Your task to perform on an android device: uninstall "Walmart Shopping & Grocery" Image 0: 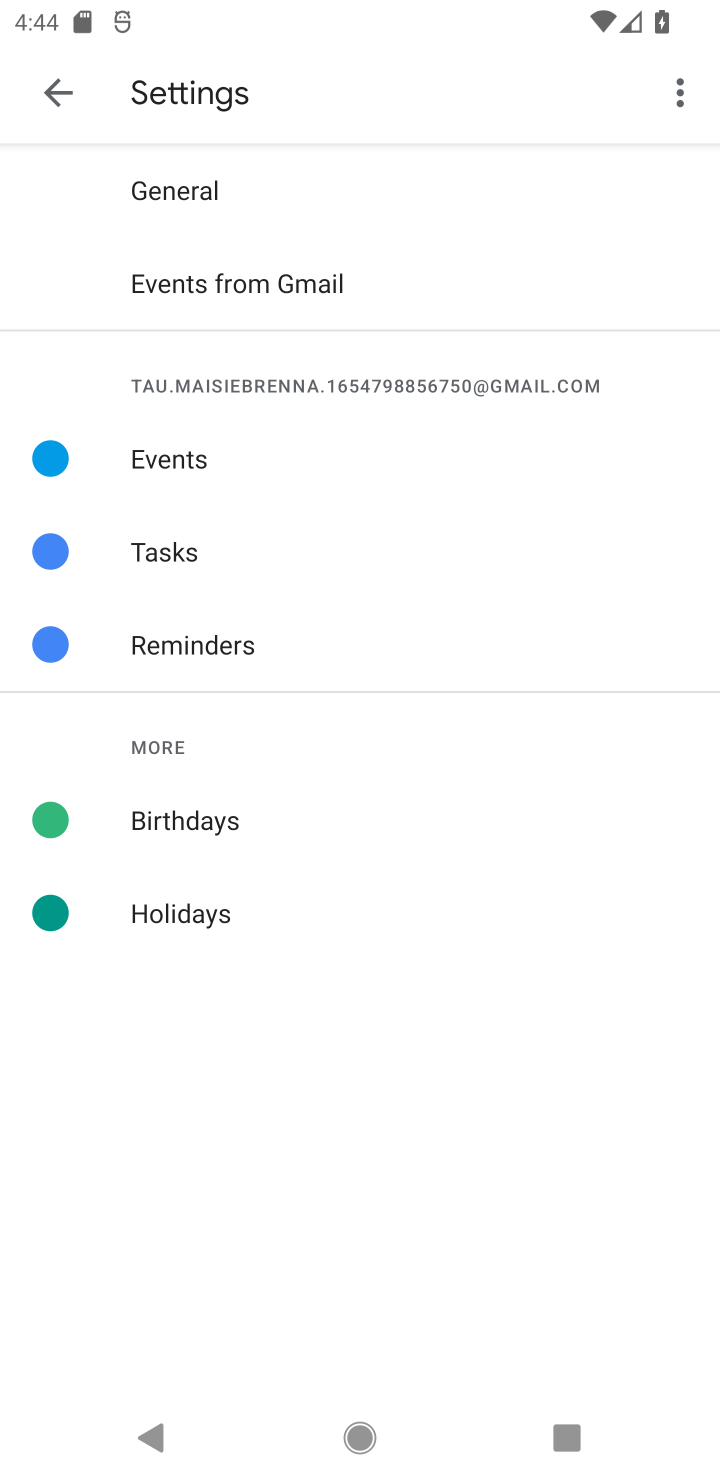
Step 0: press home button
Your task to perform on an android device: uninstall "Walmart Shopping & Grocery" Image 1: 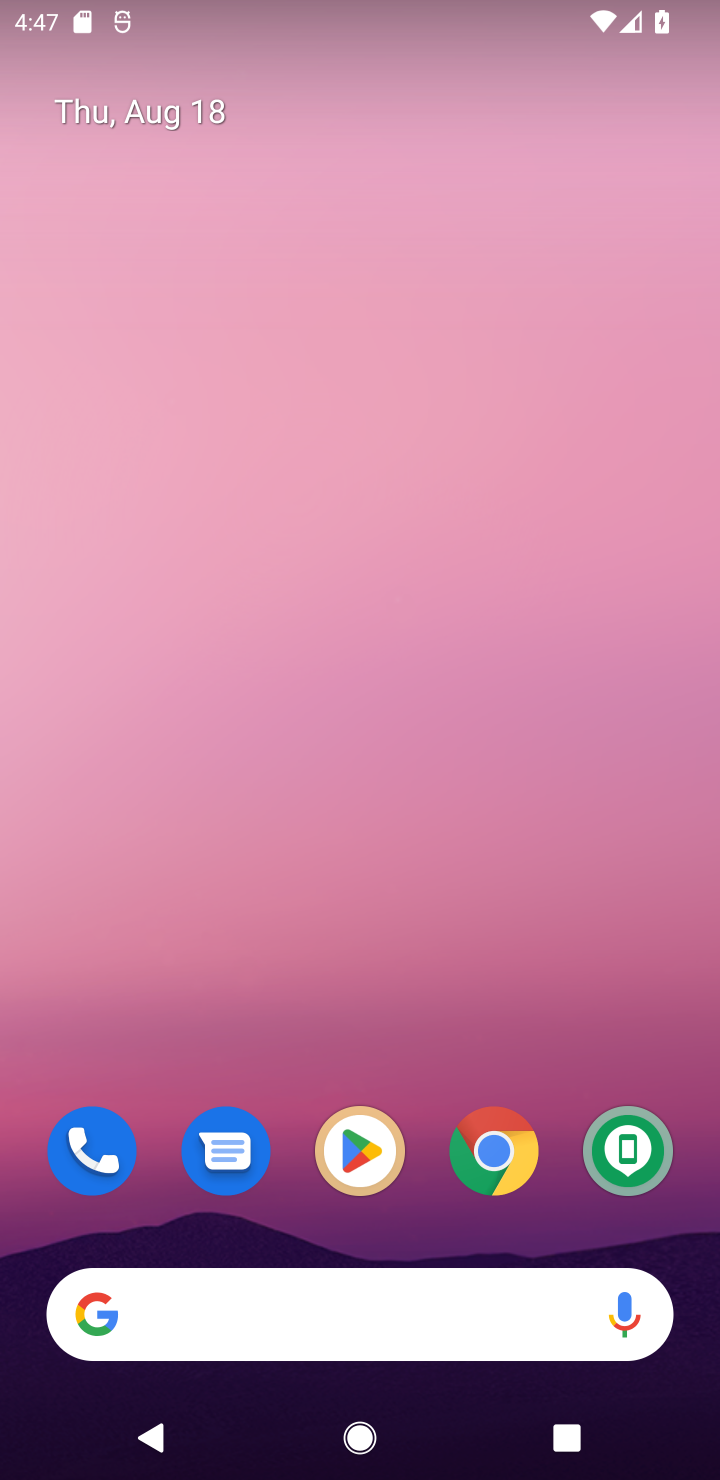
Step 1: click (324, 1178)
Your task to perform on an android device: uninstall "Walmart Shopping & Grocery" Image 2: 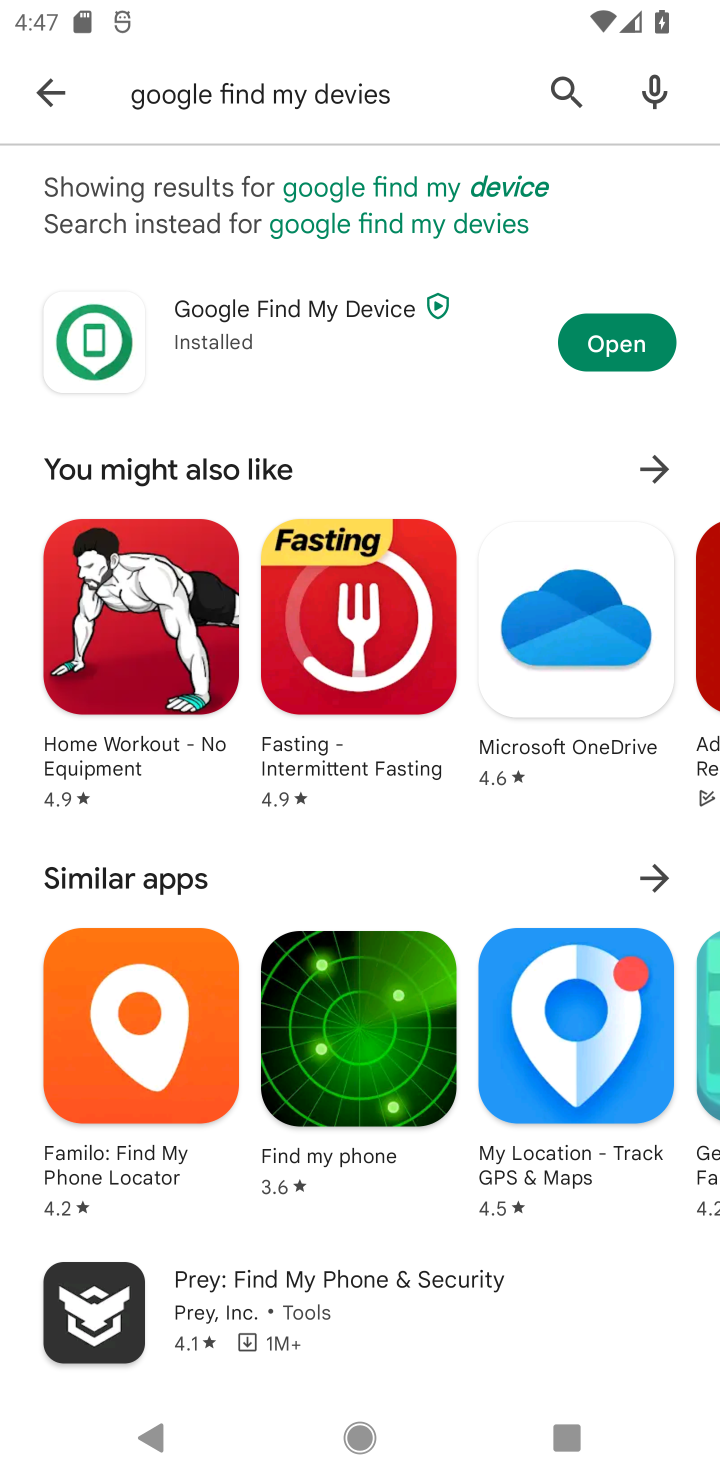
Step 2: click (571, 104)
Your task to perform on an android device: uninstall "Walmart Shopping & Grocery" Image 3: 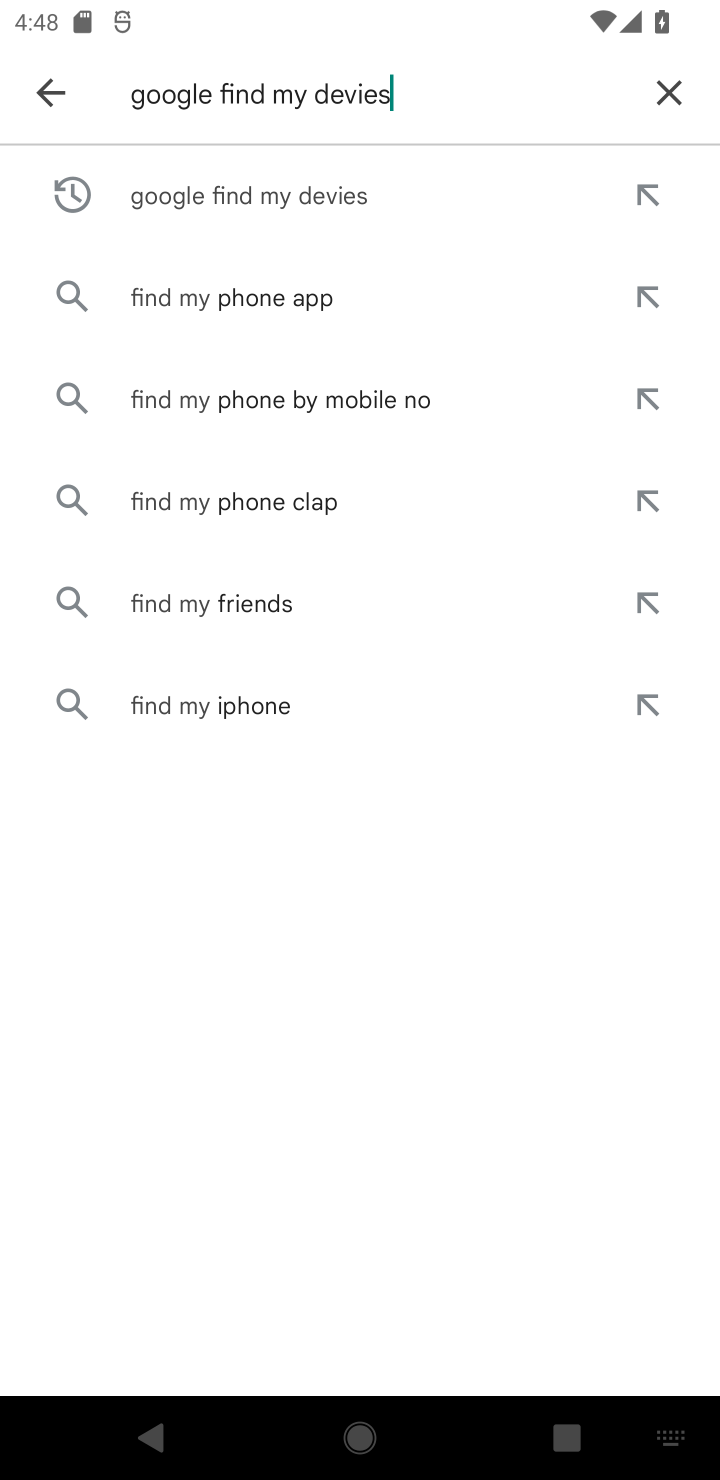
Step 3: click (380, 200)
Your task to perform on an android device: uninstall "Walmart Shopping & Grocery" Image 4: 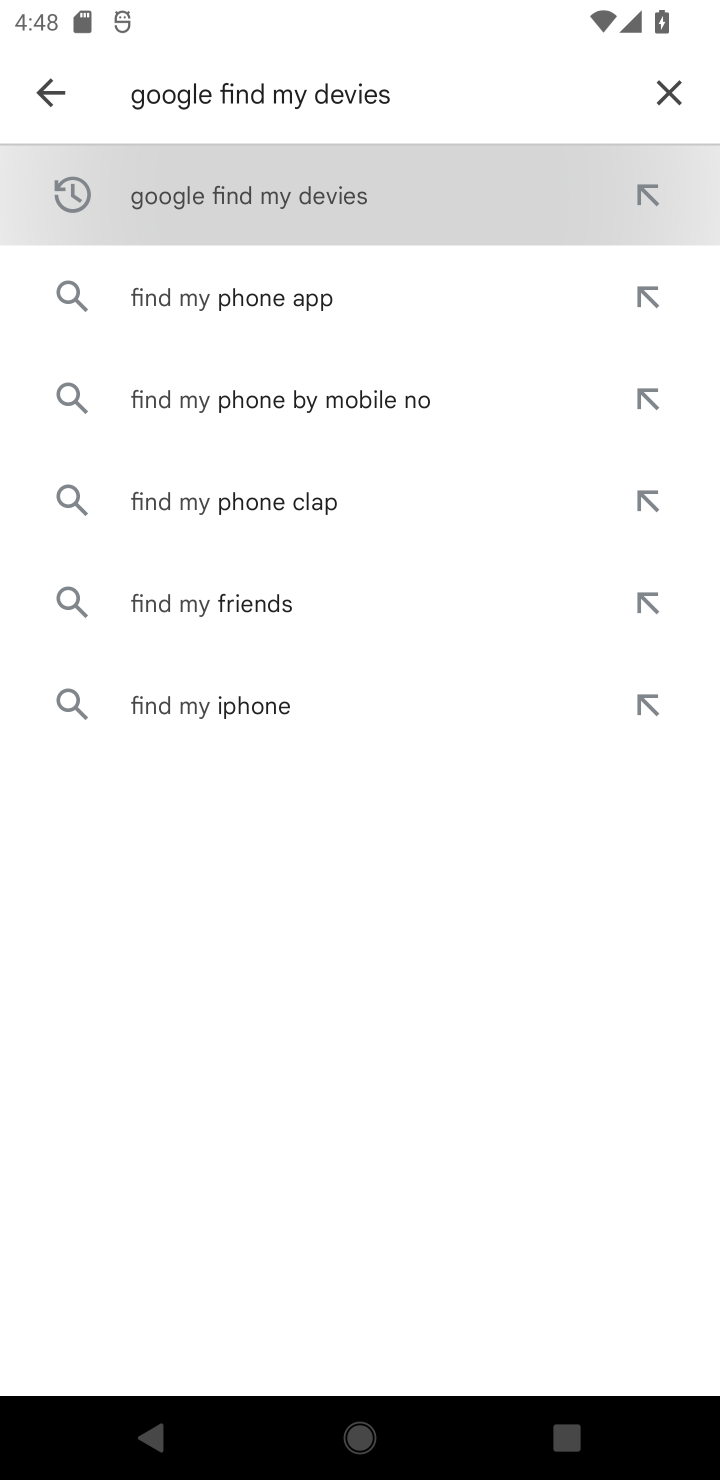
Step 4: task complete